Your task to perform on an android device: change your default location settings in chrome Image 0: 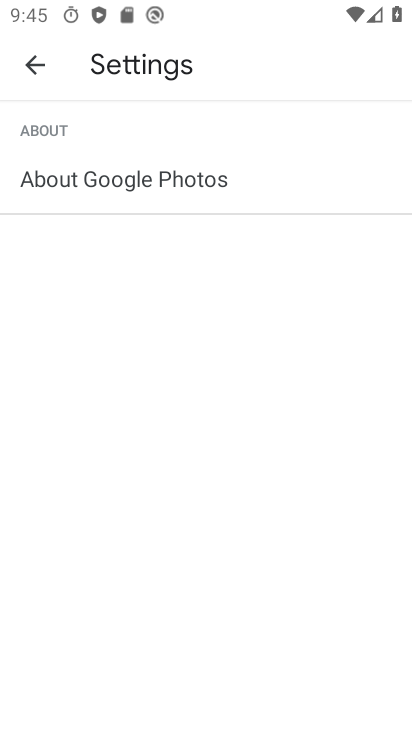
Step 0: press home button
Your task to perform on an android device: change your default location settings in chrome Image 1: 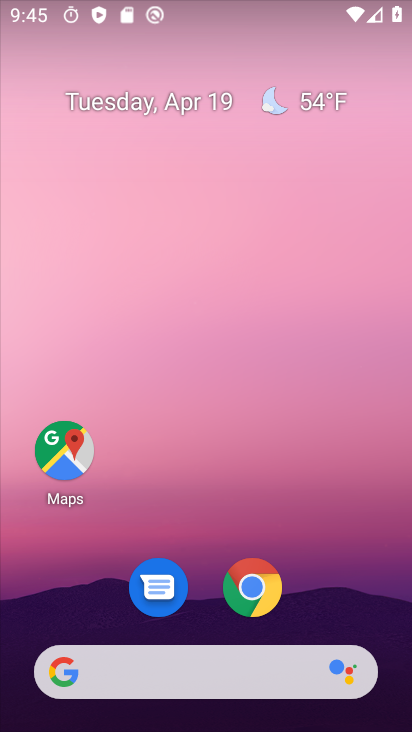
Step 1: drag from (321, 385) to (325, 73)
Your task to perform on an android device: change your default location settings in chrome Image 2: 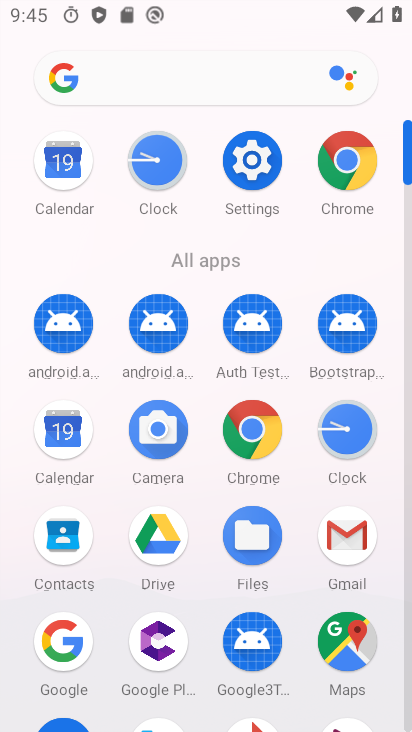
Step 2: click (341, 143)
Your task to perform on an android device: change your default location settings in chrome Image 3: 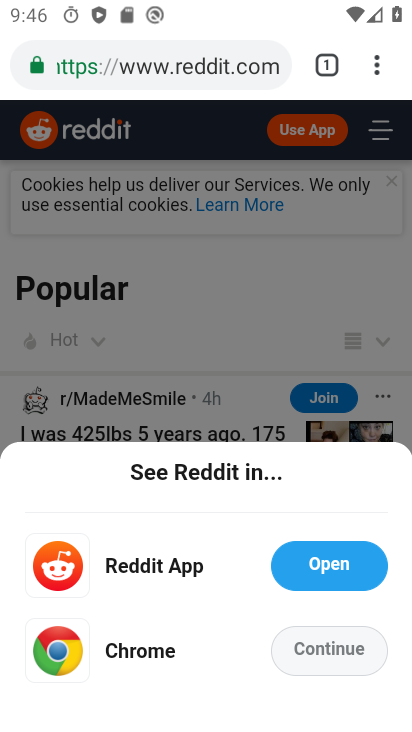
Step 3: drag from (380, 75) to (131, 649)
Your task to perform on an android device: change your default location settings in chrome Image 4: 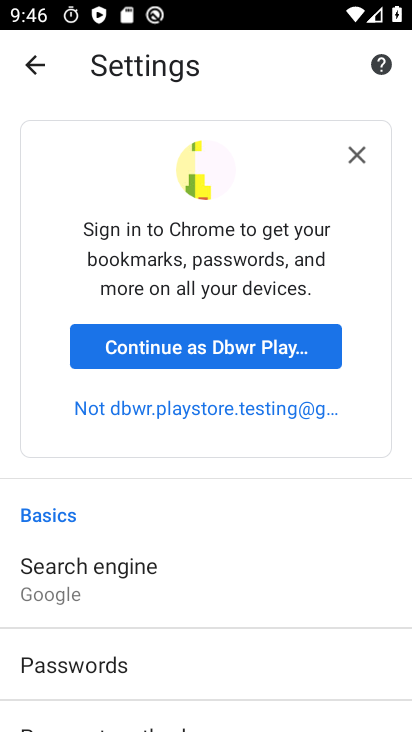
Step 4: drag from (186, 636) to (204, 353)
Your task to perform on an android device: change your default location settings in chrome Image 5: 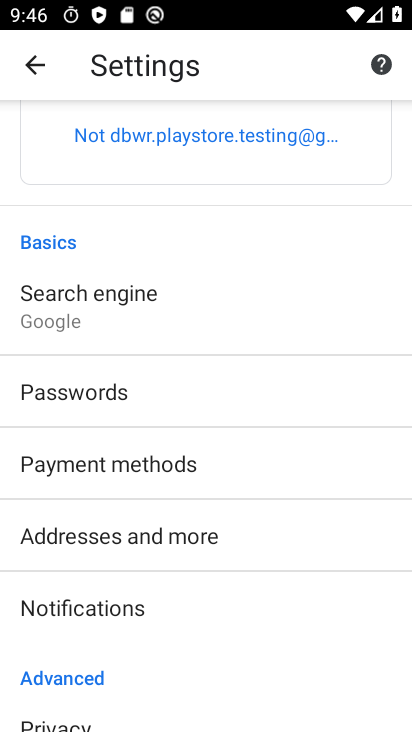
Step 5: drag from (173, 538) to (210, 219)
Your task to perform on an android device: change your default location settings in chrome Image 6: 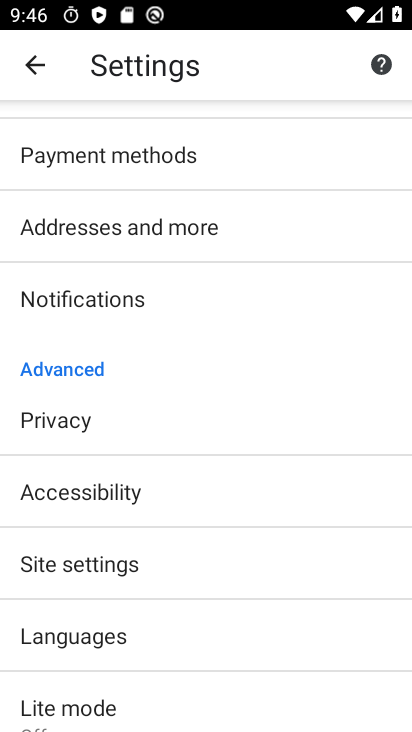
Step 6: drag from (202, 620) to (252, 294)
Your task to perform on an android device: change your default location settings in chrome Image 7: 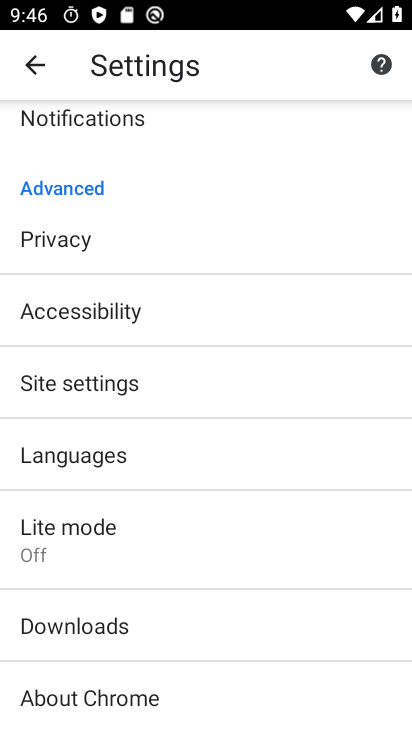
Step 7: click (123, 380)
Your task to perform on an android device: change your default location settings in chrome Image 8: 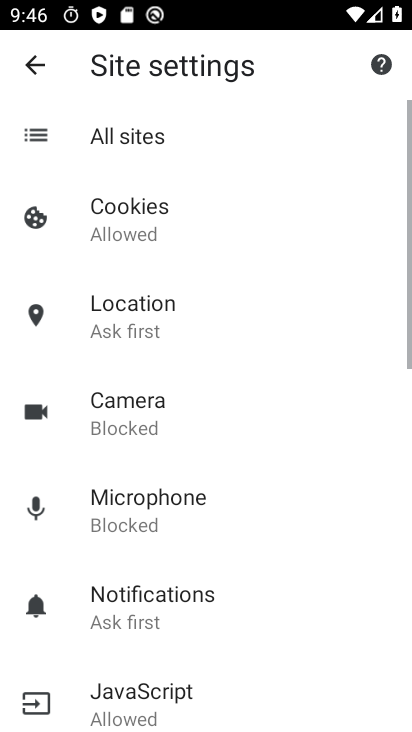
Step 8: click (119, 320)
Your task to perform on an android device: change your default location settings in chrome Image 9: 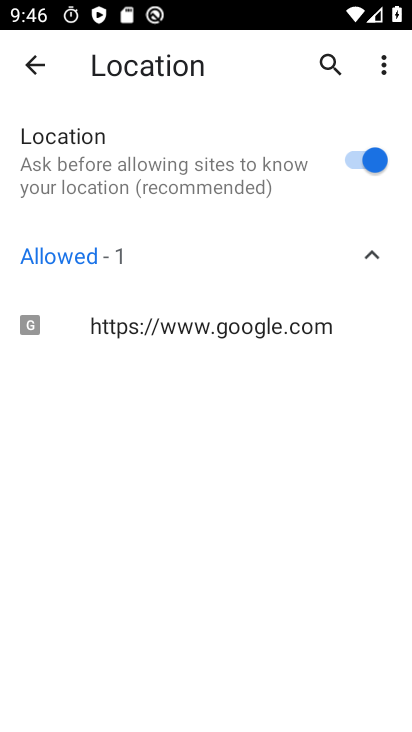
Step 9: click (347, 164)
Your task to perform on an android device: change your default location settings in chrome Image 10: 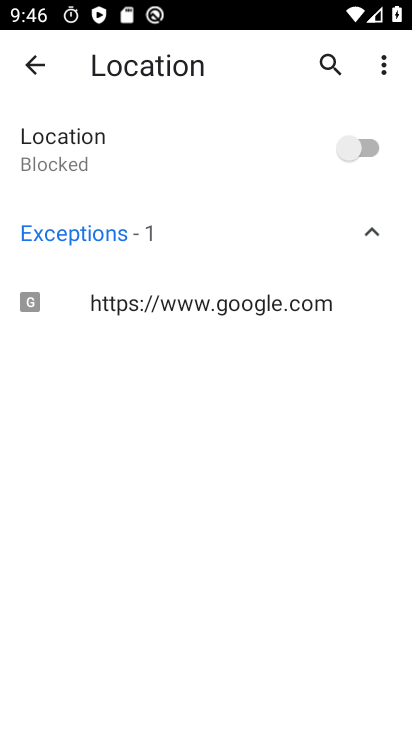
Step 10: task complete